Your task to perform on an android device: open a bookmark in the chrome app Image 0: 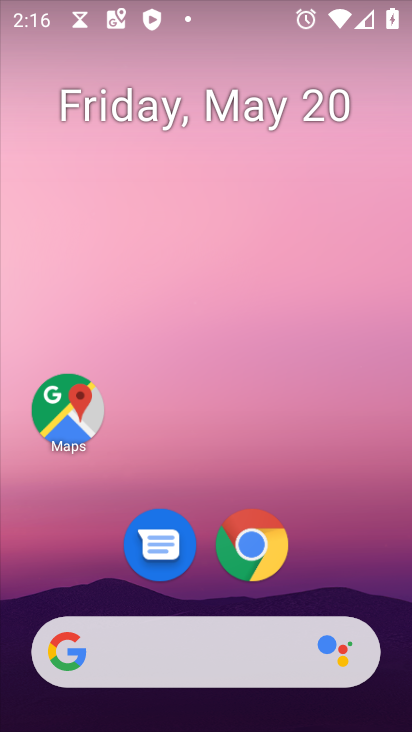
Step 0: click (258, 556)
Your task to perform on an android device: open a bookmark in the chrome app Image 1: 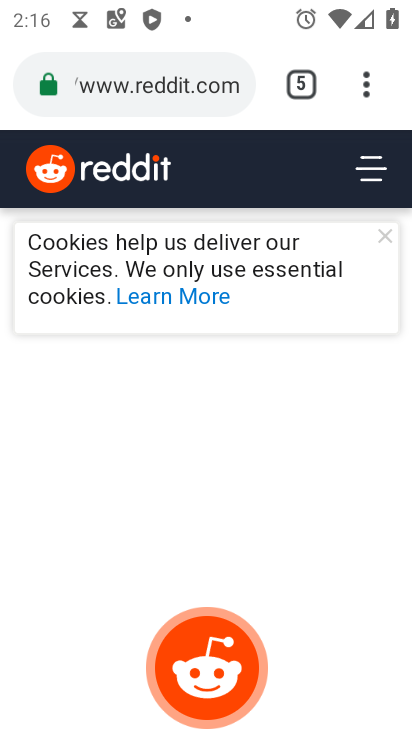
Step 1: click (374, 82)
Your task to perform on an android device: open a bookmark in the chrome app Image 2: 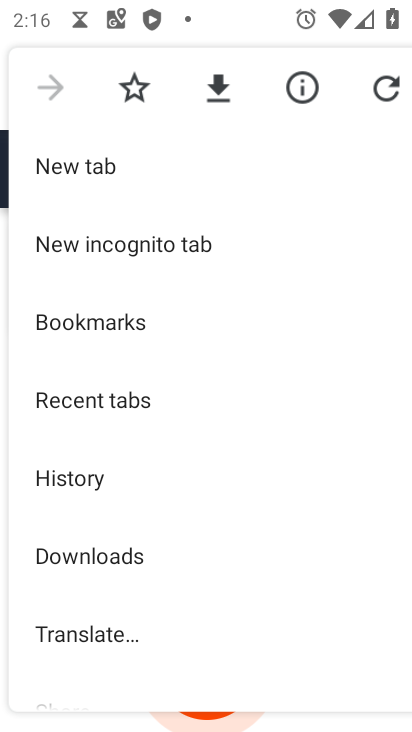
Step 2: click (123, 330)
Your task to perform on an android device: open a bookmark in the chrome app Image 3: 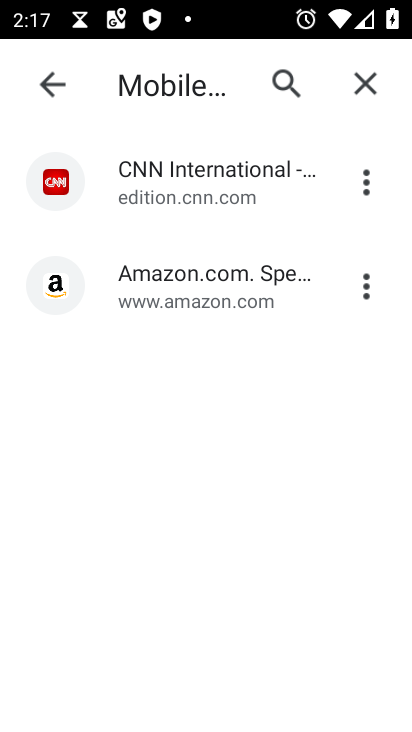
Step 3: click (221, 196)
Your task to perform on an android device: open a bookmark in the chrome app Image 4: 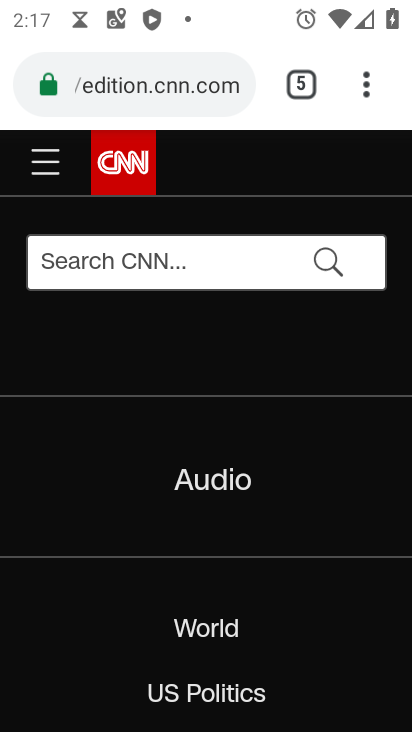
Step 4: task complete